Your task to perform on an android device: check google app version Image 0: 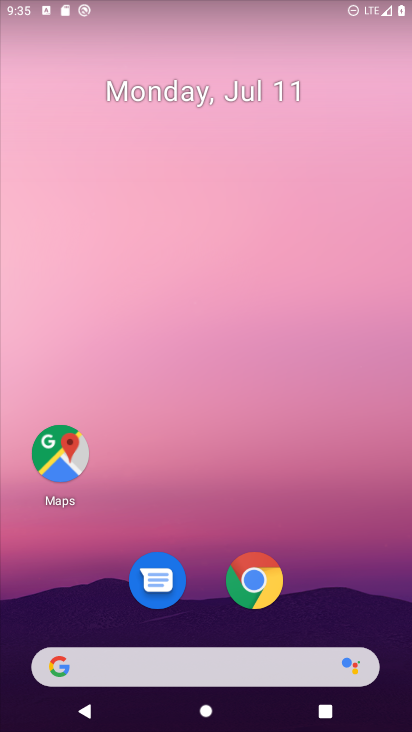
Step 0: click (59, 660)
Your task to perform on an android device: check google app version Image 1: 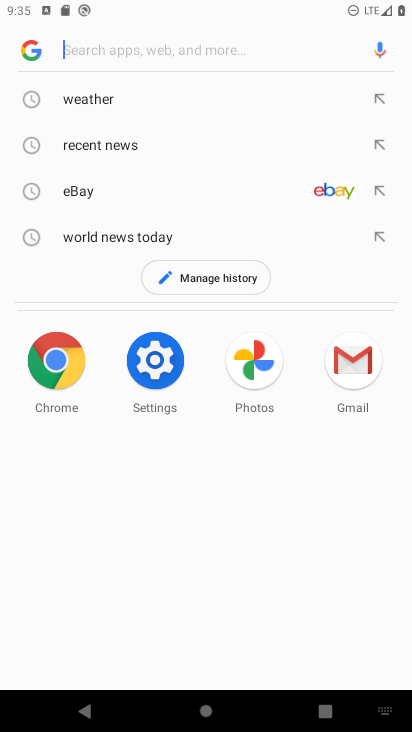
Step 1: click (33, 47)
Your task to perform on an android device: check google app version Image 2: 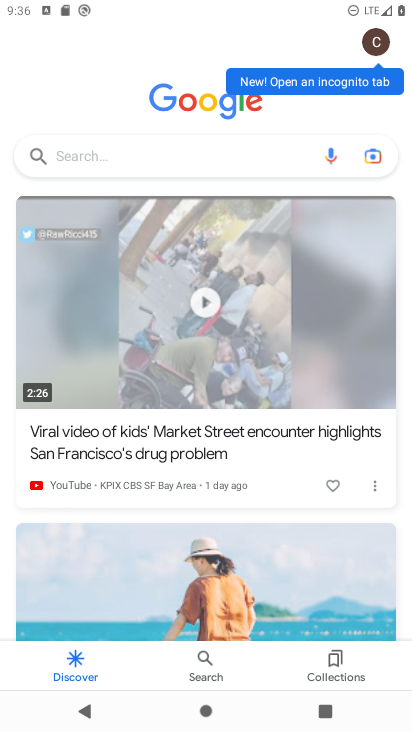
Step 2: click (381, 46)
Your task to perform on an android device: check google app version Image 3: 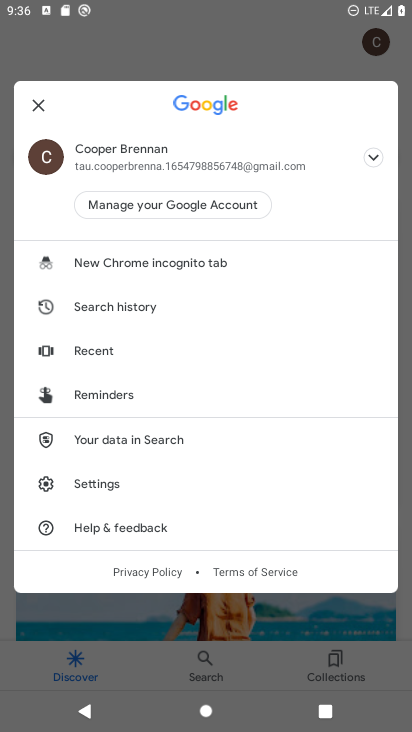
Step 3: click (105, 479)
Your task to perform on an android device: check google app version Image 4: 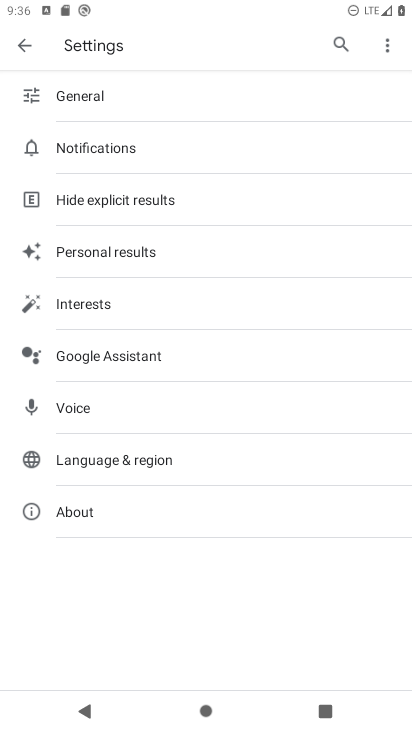
Step 4: click (78, 503)
Your task to perform on an android device: check google app version Image 5: 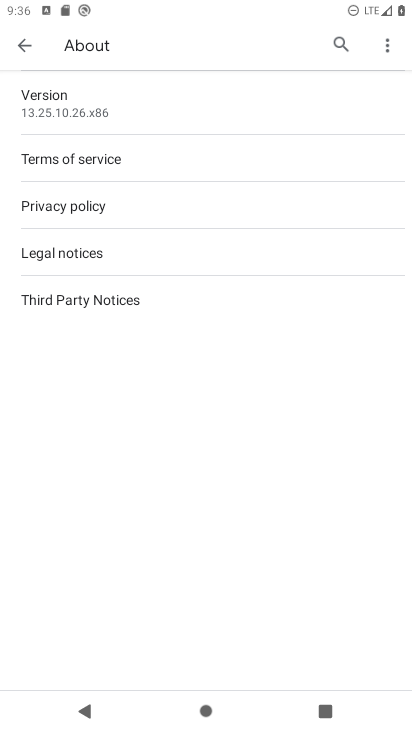
Step 5: task complete